Your task to perform on an android device: open chrome and create a bookmark for the current page Image 0: 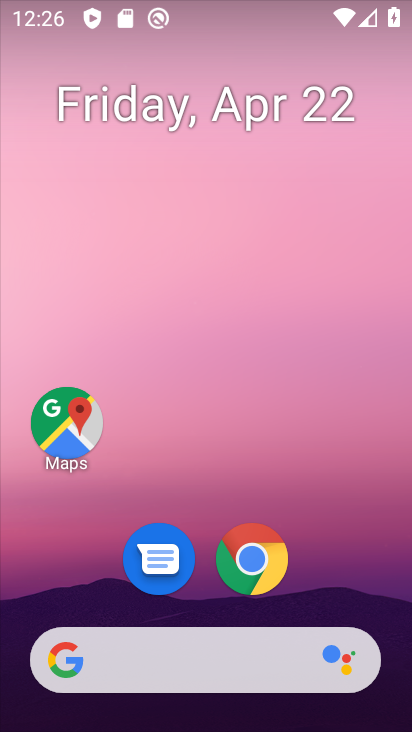
Step 0: drag from (364, 595) to (261, 63)
Your task to perform on an android device: open chrome and create a bookmark for the current page Image 1: 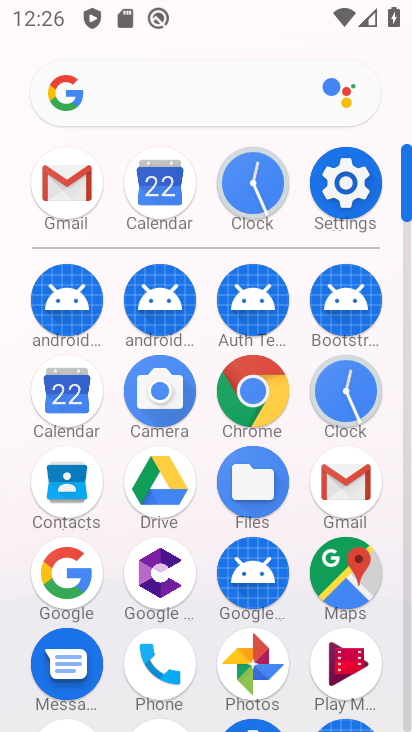
Step 1: click (243, 406)
Your task to perform on an android device: open chrome and create a bookmark for the current page Image 2: 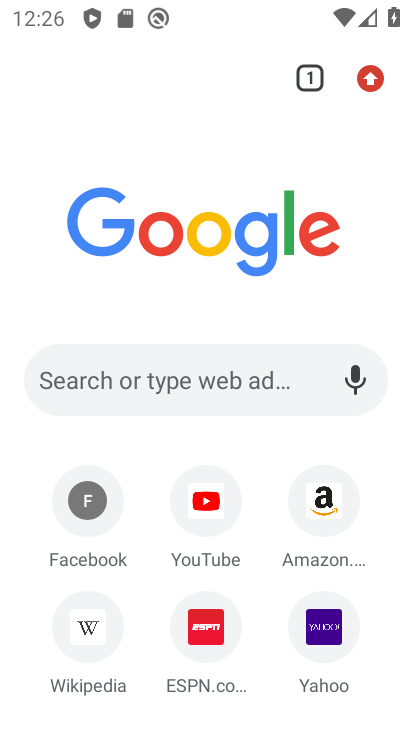
Step 2: click (363, 73)
Your task to perform on an android device: open chrome and create a bookmark for the current page Image 3: 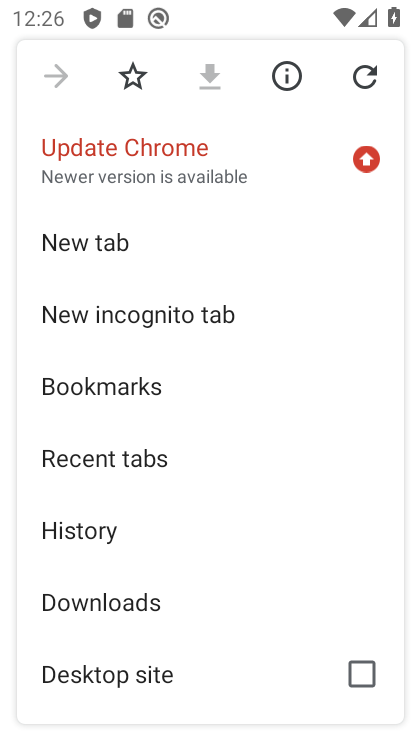
Step 3: click (137, 71)
Your task to perform on an android device: open chrome and create a bookmark for the current page Image 4: 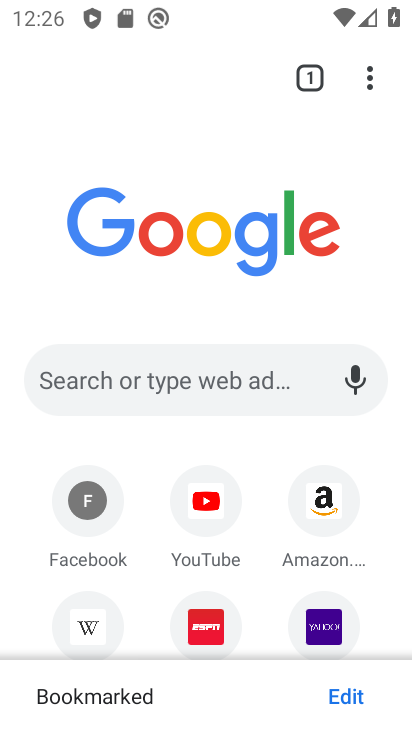
Step 4: click (369, 69)
Your task to perform on an android device: open chrome and create a bookmark for the current page Image 5: 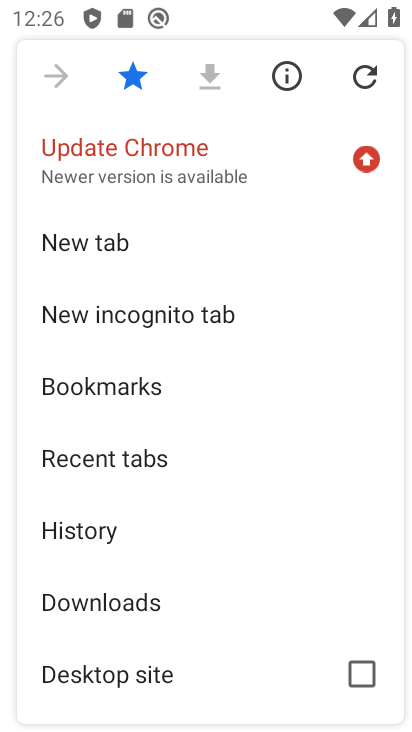
Step 5: task complete